Your task to perform on an android device: Go to settings Image 0: 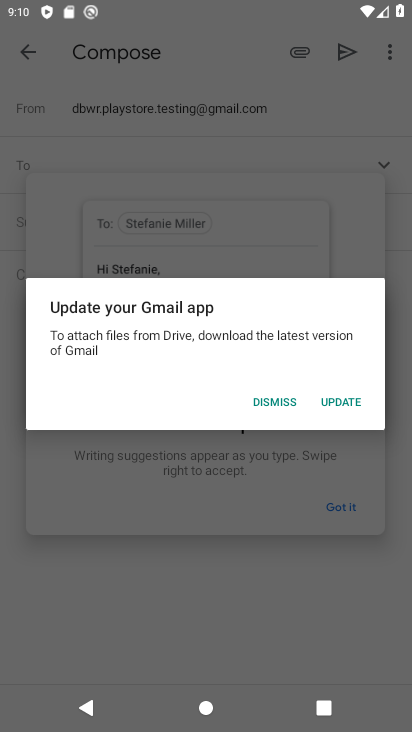
Step 0: press home button
Your task to perform on an android device: Go to settings Image 1: 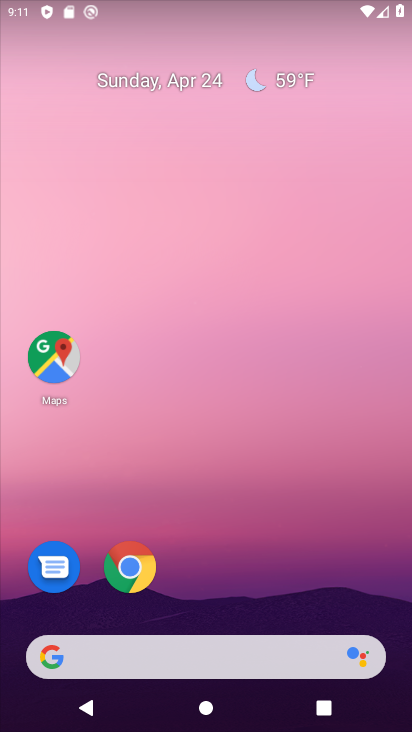
Step 1: click (340, 160)
Your task to perform on an android device: Go to settings Image 2: 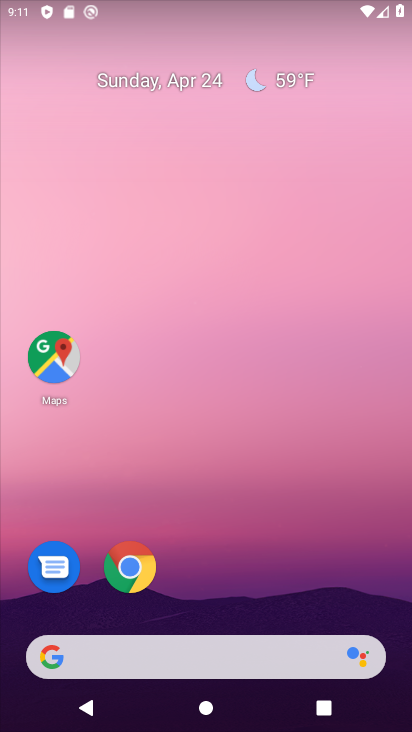
Step 2: click (350, 274)
Your task to perform on an android device: Go to settings Image 3: 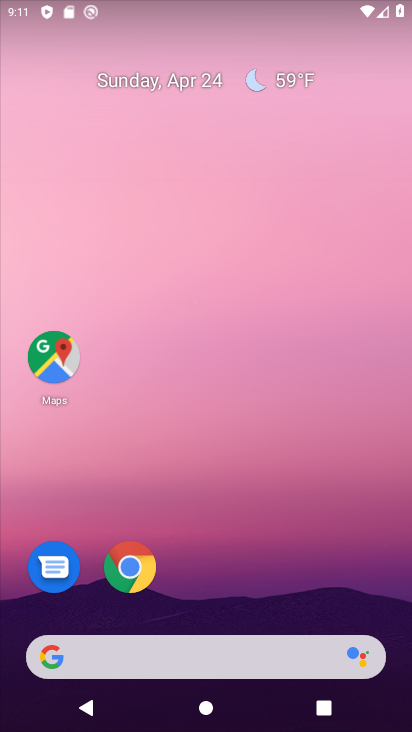
Step 3: drag from (363, 316) to (355, 226)
Your task to perform on an android device: Go to settings Image 4: 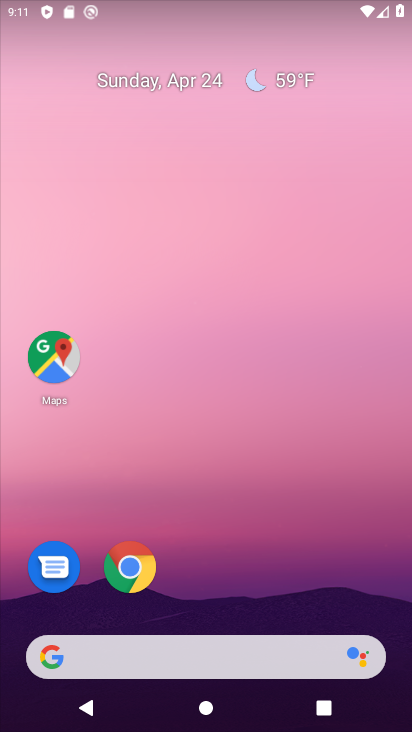
Step 4: drag from (376, 484) to (336, 20)
Your task to perform on an android device: Go to settings Image 5: 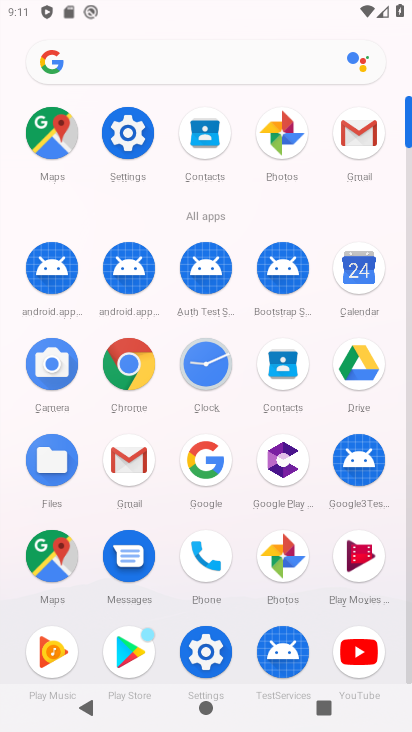
Step 5: click (190, 650)
Your task to perform on an android device: Go to settings Image 6: 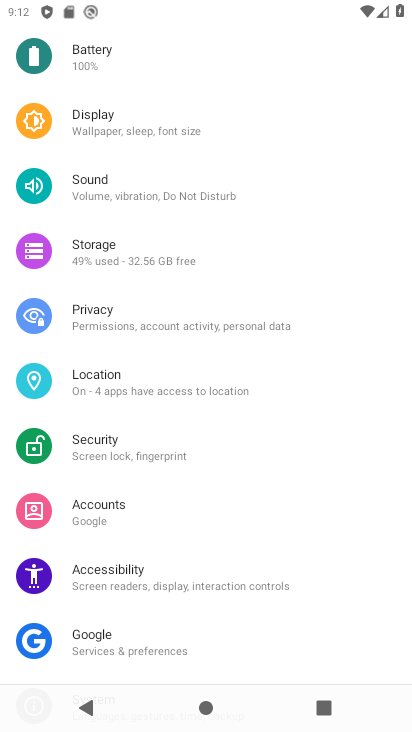
Step 6: task complete